Your task to perform on an android device: toggle show notifications on the lock screen Image 0: 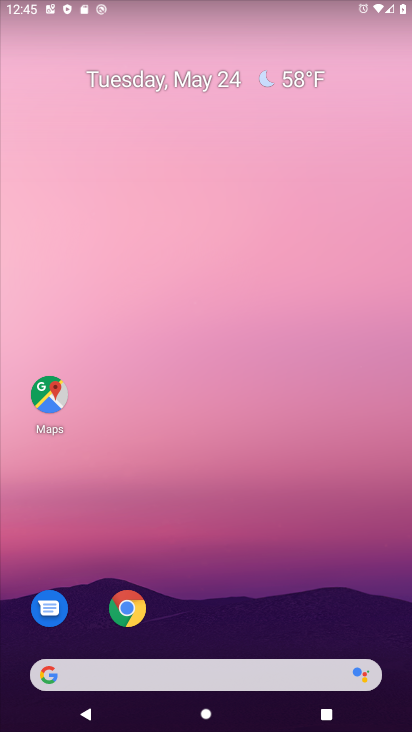
Step 0: press home button
Your task to perform on an android device: toggle show notifications on the lock screen Image 1: 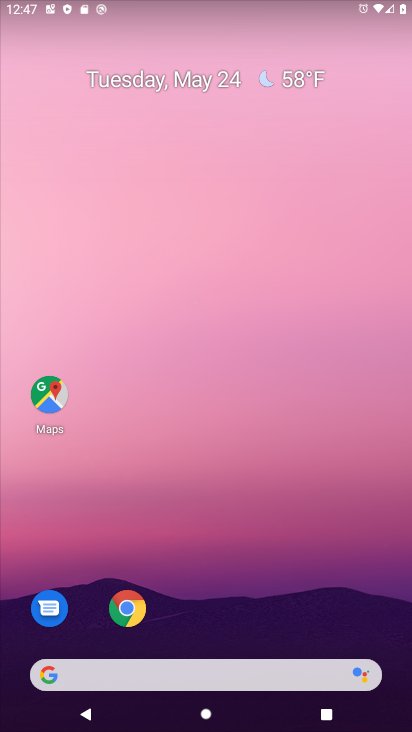
Step 1: drag from (232, 666) to (230, 55)
Your task to perform on an android device: toggle show notifications on the lock screen Image 2: 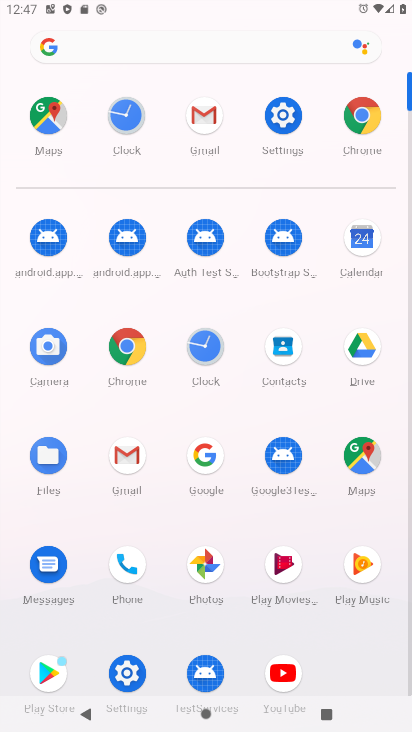
Step 2: click (292, 127)
Your task to perform on an android device: toggle show notifications on the lock screen Image 3: 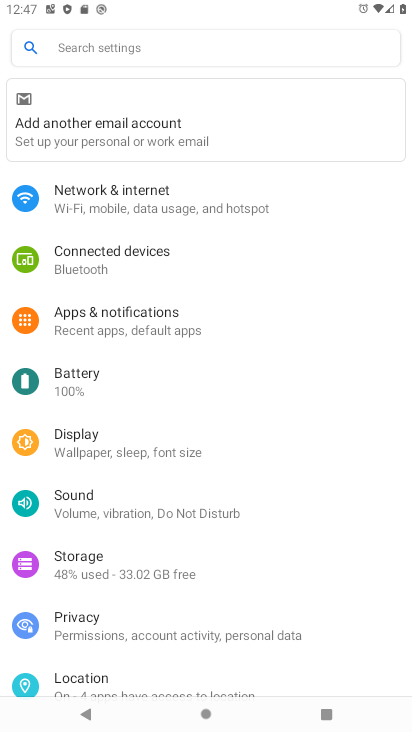
Step 3: click (148, 50)
Your task to perform on an android device: toggle show notifications on the lock screen Image 4: 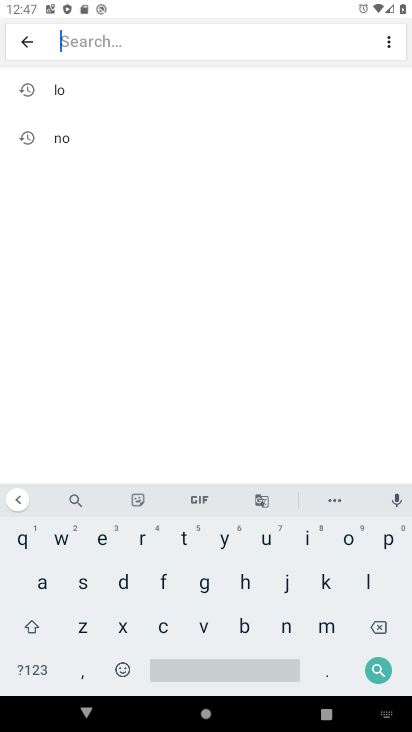
Step 4: click (280, 628)
Your task to perform on an android device: toggle show notifications on the lock screen Image 5: 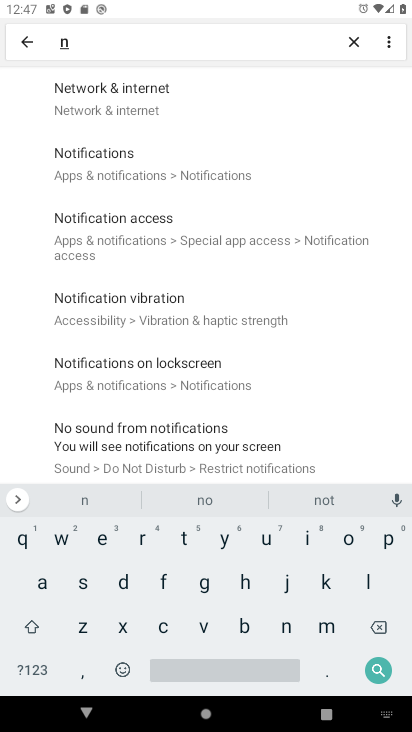
Step 5: click (160, 165)
Your task to perform on an android device: toggle show notifications on the lock screen Image 6: 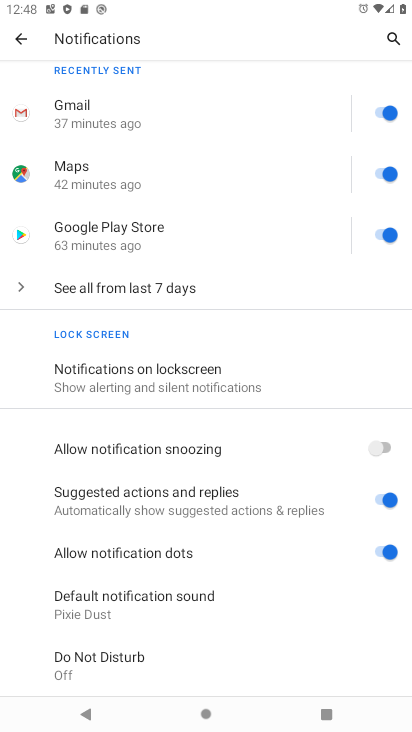
Step 6: click (154, 378)
Your task to perform on an android device: toggle show notifications on the lock screen Image 7: 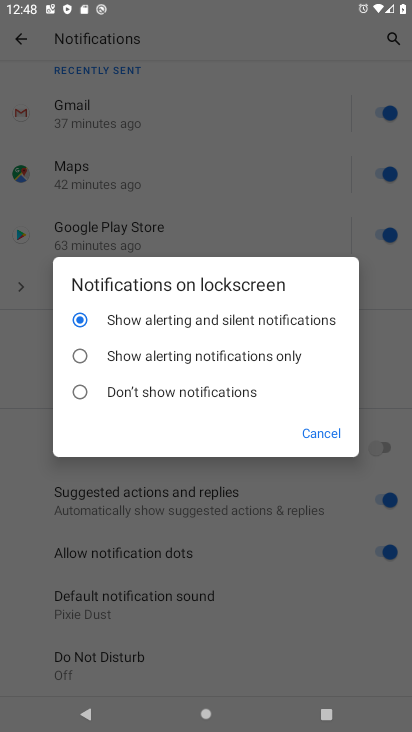
Step 7: task complete